Your task to perform on an android device: Search for Mexican restaurants on Maps Image 0: 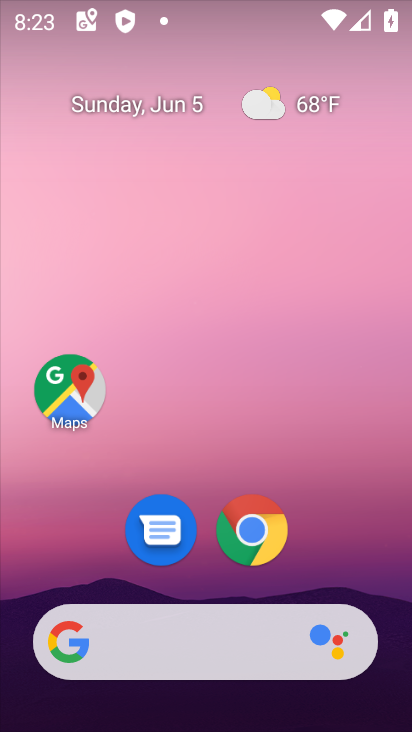
Step 0: click (68, 388)
Your task to perform on an android device: Search for Mexican restaurants on Maps Image 1: 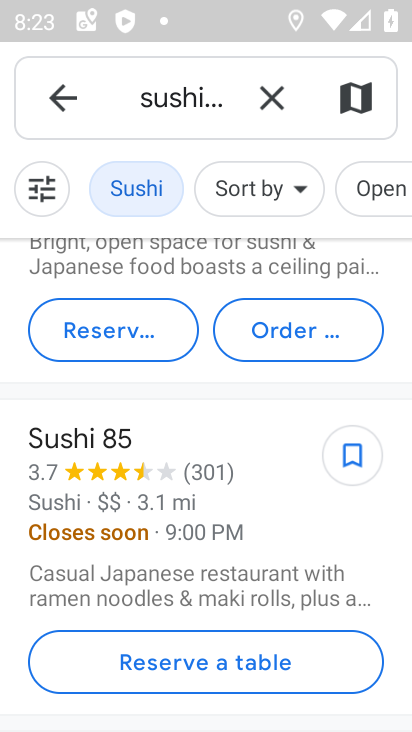
Step 1: click (265, 99)
Your task to perform on an android device: Search for Mexican restaurants on Maps Image 2: 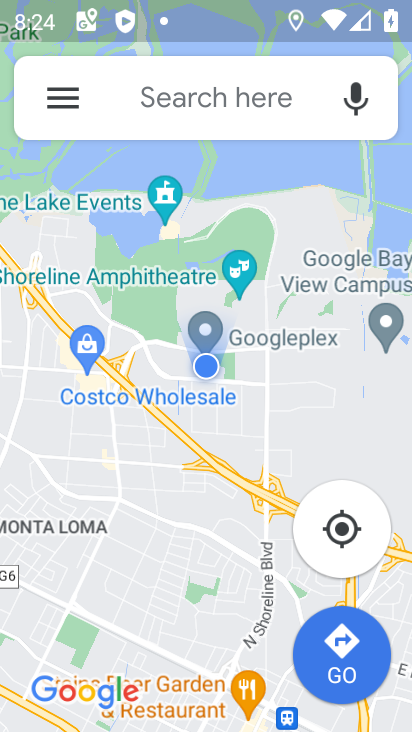
Step 2: click (135, 81)
Your task to perform on an android device: Search for Mexican restaurants on Maps Image 3: 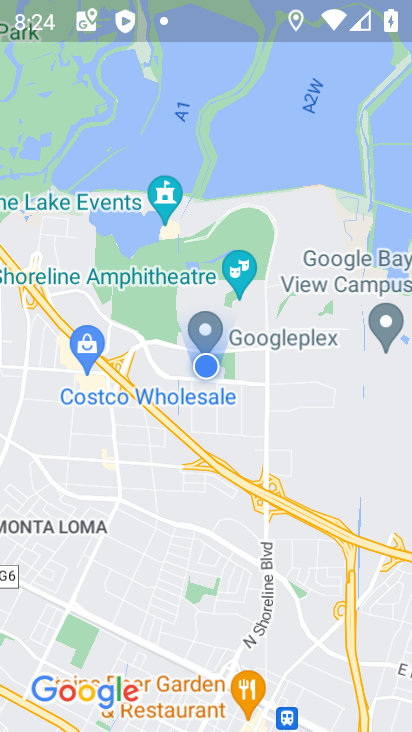
Step 3: drag from (230, 134) to (237, 327)
Your task to perform on an android device: Search for Mexican restaurants on Maps Image 4: 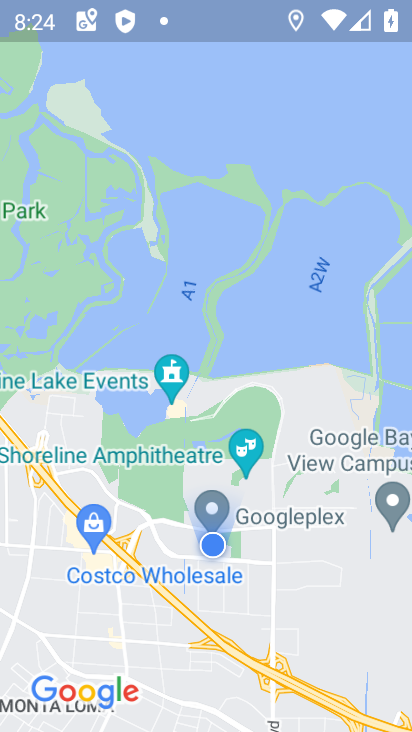
Step 4: drag from (238, 218) to (241, 98)
Your task to perform on an android device: Search for Mexican restaurants on Maps Image 5: 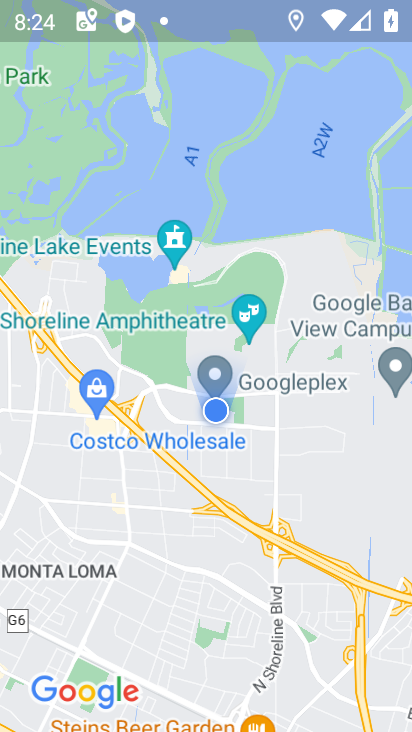
Step 5: press back button
Your task to perform on an android device: Search for Mexican restaurants on Maps Image 6: 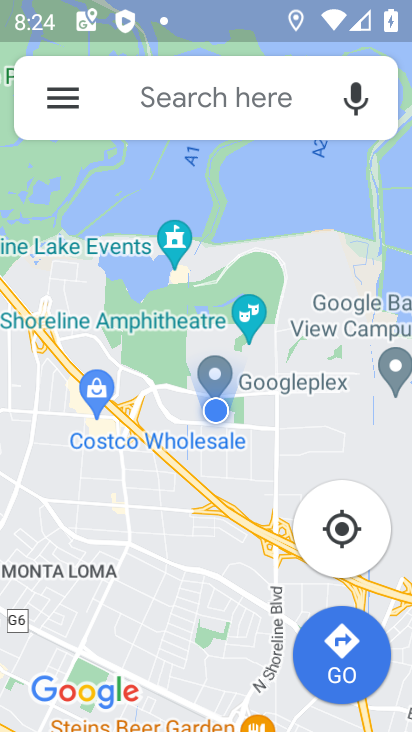
Step 6: click (212, 99)
Your task to perform on an android device: Search for Mexican restaurants on Maps Image 7: 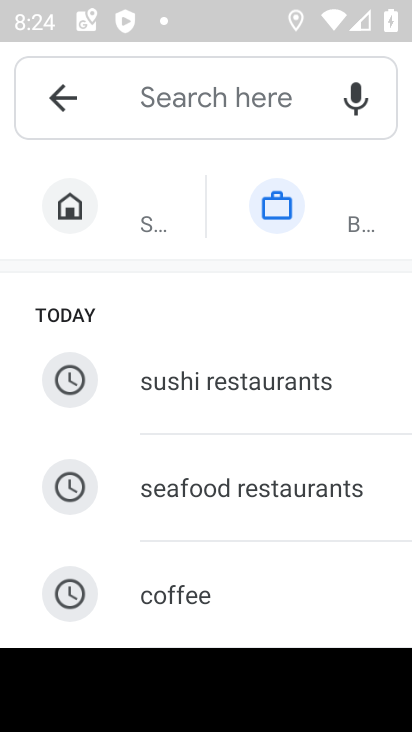
Step 7: type "mexican restaurants"
Your task to perform on an android device: Search for Mexican restaurants on Maps Image 8: 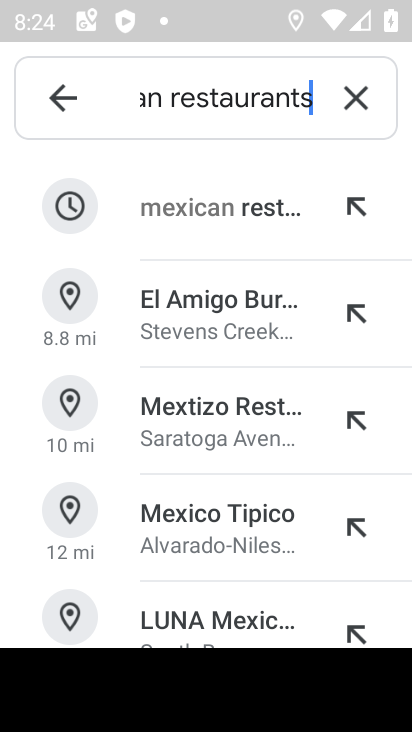
Step 8: click (237, 197)
Your task to perform on an android device: Search for Mexican restaurants on Maps Image 9: 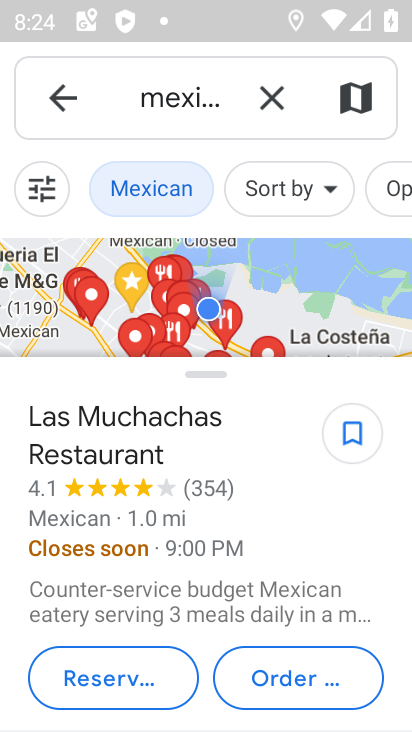
Step 9: task complete